Your task to perform on an android device: make emails show in primary in the gmail app Image 0: 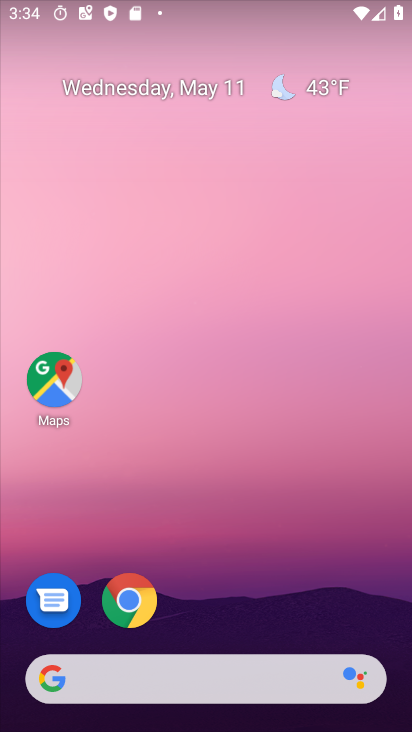
Step 0: drag from (318, 625) to (337, 12)
Your task to perform on an android device: make emails show in primary in the gmail app Image 1: 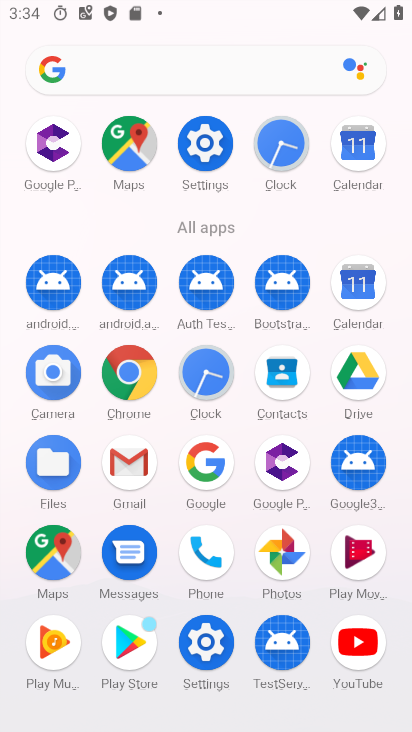
Step 1: click (138, 471)
Your task to perform on an android device: make emails show in primary in the gmail app Image 2: 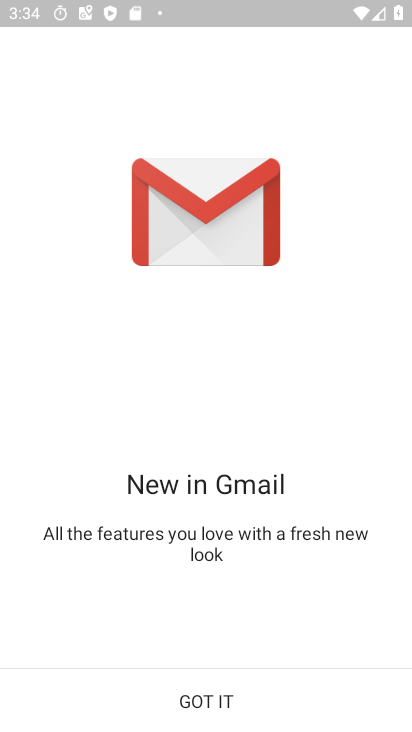
Step 2: click (220, 695)
Your task to perform on an android device: make emails show in primary in the gmail app Image 3: 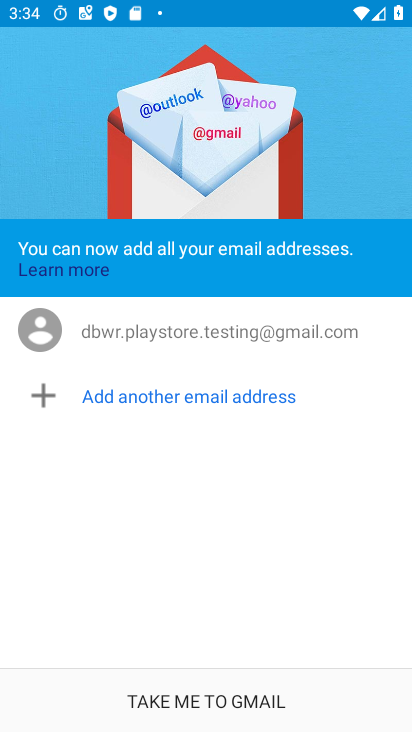
Step 3: click (220, 695)
Your task to perform on an android device: make emails show in primary in the gmail app Image 4: 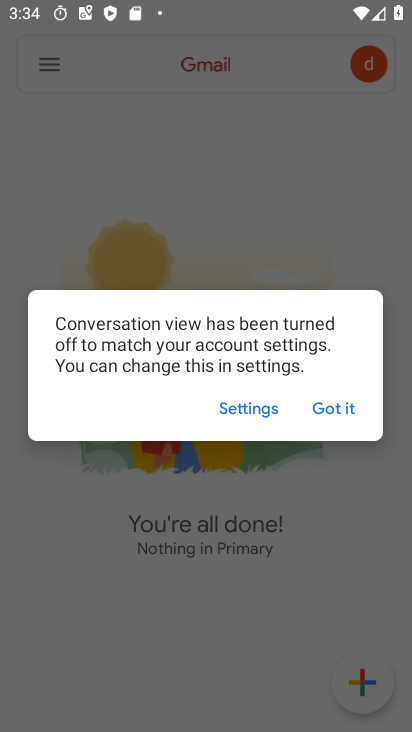
Step 4: click (330, 410)
Your task to perform on an android device: make emails show in primary in the gmail app Image 5: 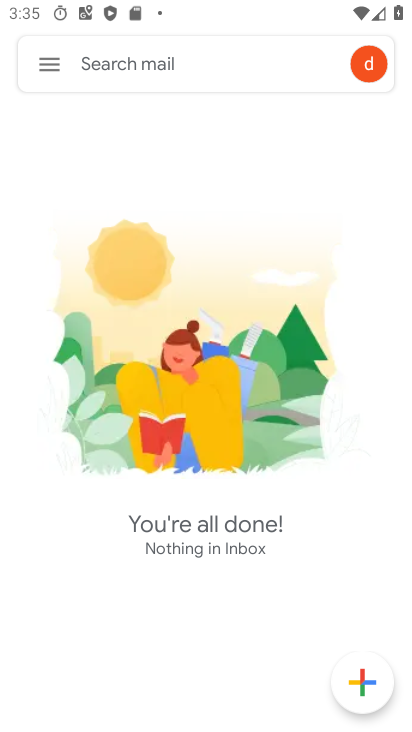
Step 5: click (45, 66)
Your task to perform on an android device: make emails show in primary in the gmail app Image 6: 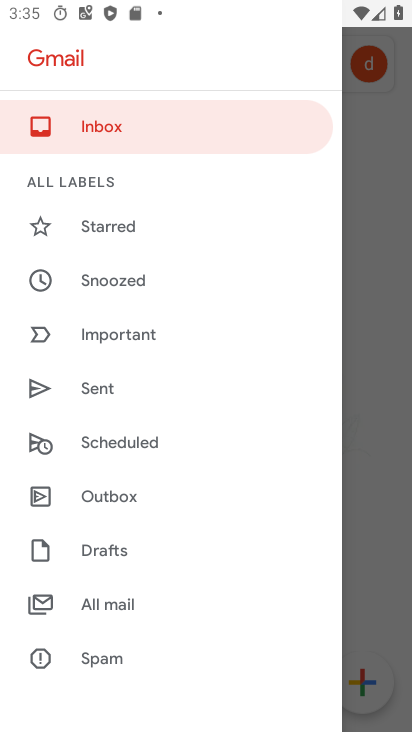
Step 6: drag from (200, 635) to (260, 241)
Your task to perform on an android device: make emails show in primary in the gmail app Image 7: 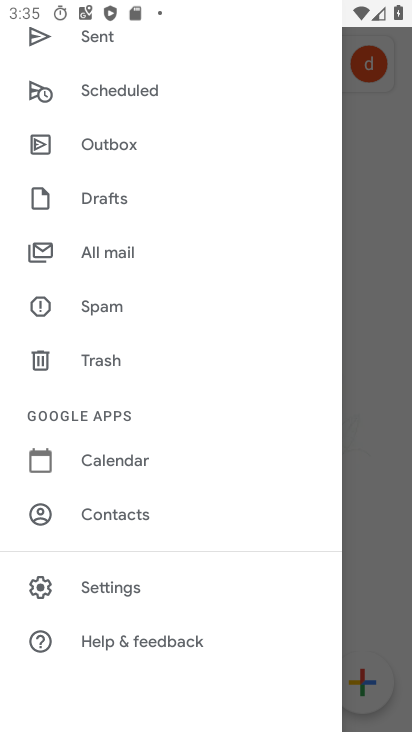
Step 7: click (118, 589)
Your task to perform on an android device: make emails show in primary in the gmail app Image 8: 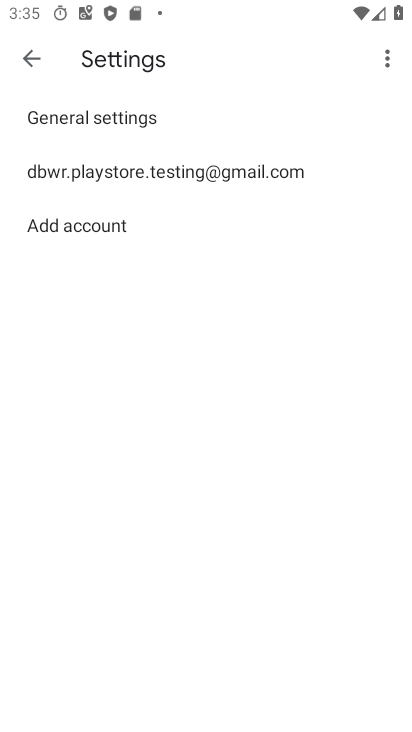
Step 8: click (99, 175)
Your task to perform on an android device: make emails show in primary in the gmail app Image 9: 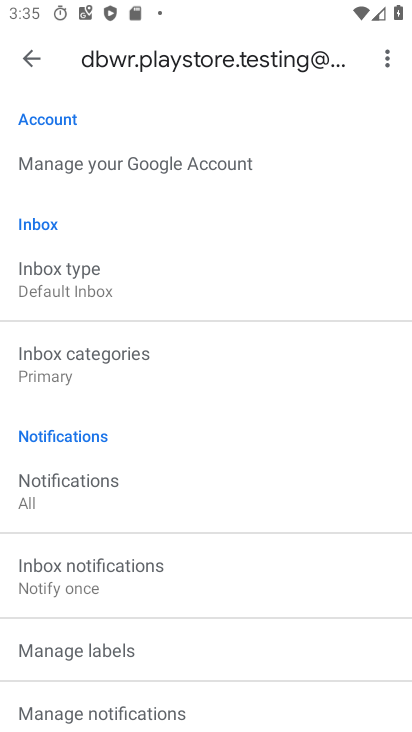
Step 9: task complete